Your task to perform on an android device: turn vacation reply on in the gmail app Image 0: 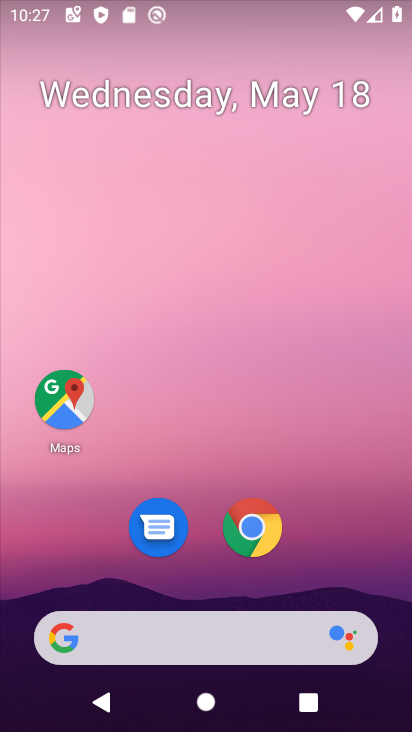
Step 0: drag from (342, 542) to (304, 7)
Your task to perform on an android device: turn vacation reply on in the gmail app Image 1: 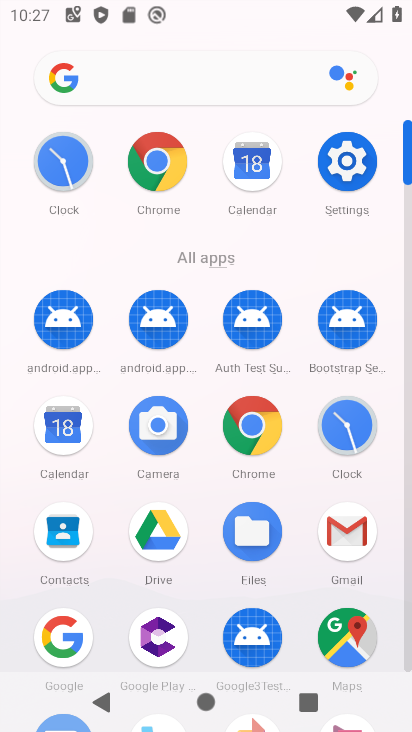
Step 1: click (344, 519)
Your task to perform on an android device: turn vacation reply on in the gmail app Image 2: 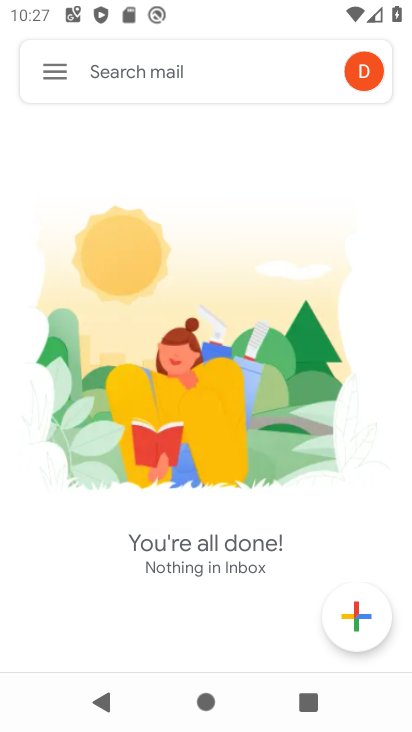
Step 2: click (45, 83)
Your task to perform on an android device: turn vacation reply on in the gmail app Image 3: 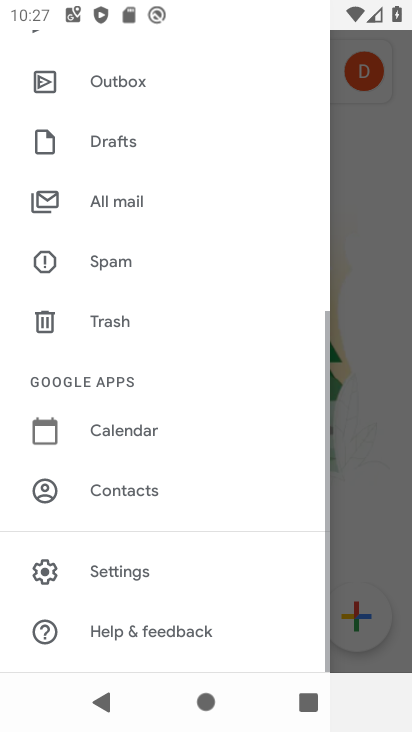
Step 3: click (93, 556)
Your task to perform on an android device: turn vacation reply on in the gmail app Image 4: 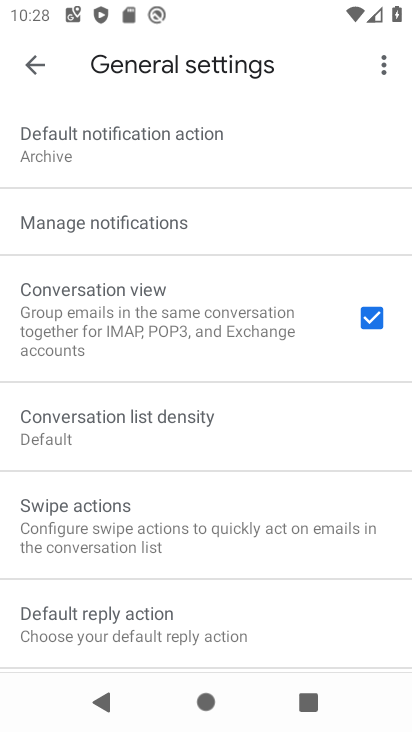
Step 4: drag from (146, 515) to (149, 368)
Your task to perform on an android device: turn vacation reply on in the gmail app Image 5: 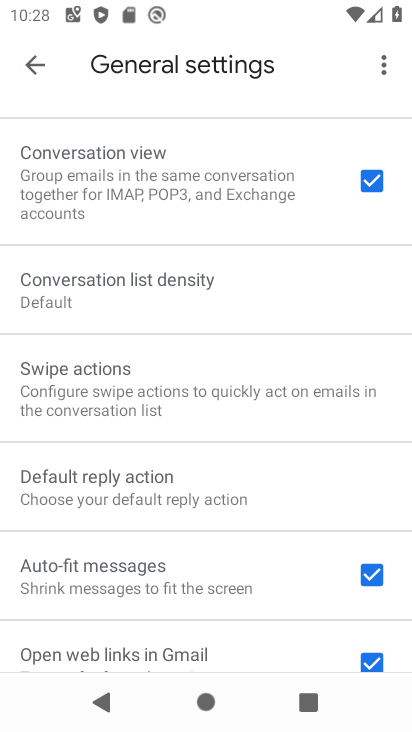
Step 5: click (34, 71)
Your task to perform on an android device: turn vacation reply on in the gmail app Image 6: 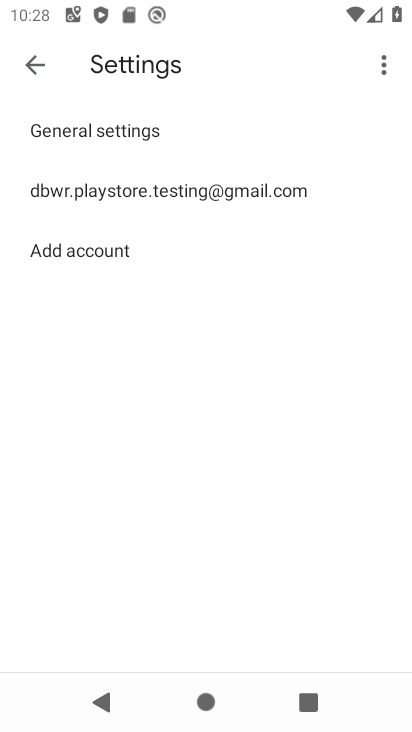
Step 6: click (42, 186)
Your task to perform on an android device: turn vacation reply on in the gmail app Image 7: 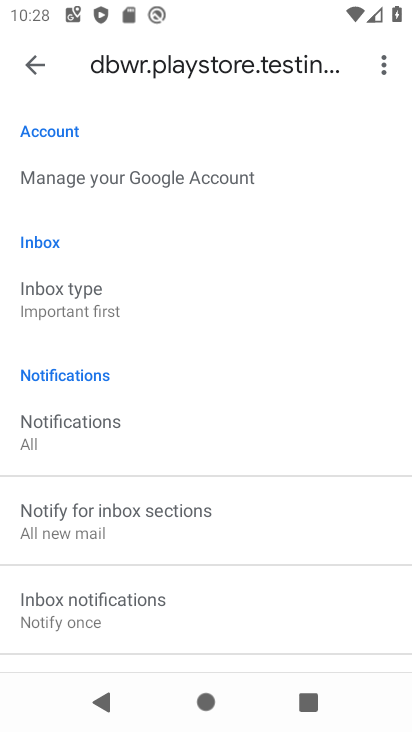
Step 7: drag from (65, 498) to (92, 388)
Your task to perform on an android device: turn vacation reply on in the gmail app Image 8: 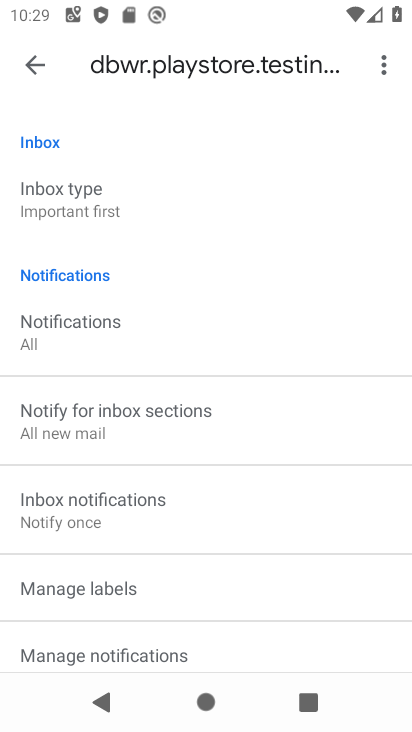
Step 8: drag from (136, 610) to (151, 484)
Your task to perform on an android device: turn vacation reply on in the gmail app Image 9: 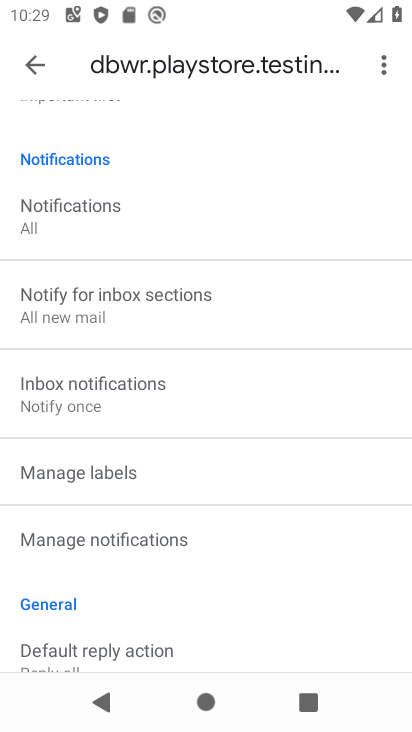
Step 9: drag from (178, 611) to (195, 512)
Your task to perform on an android device: turn vacation reply on in the gmail app Image 10: 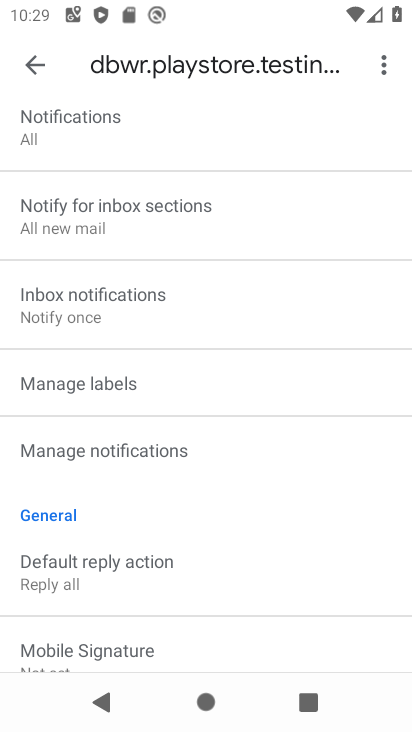
Step 10: drag from (165, 606) to (165, 541)
Your task to perform on an android device: turn vacation reply on in the gmail app Image 11: 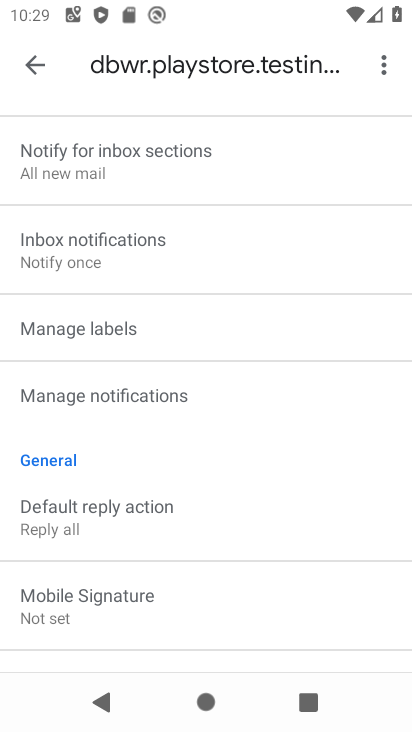
Step 11: drag from (150, 567) to (174, 359)
Your task to perform on an android device: turn vacation reply on in the gmail app Image 12: 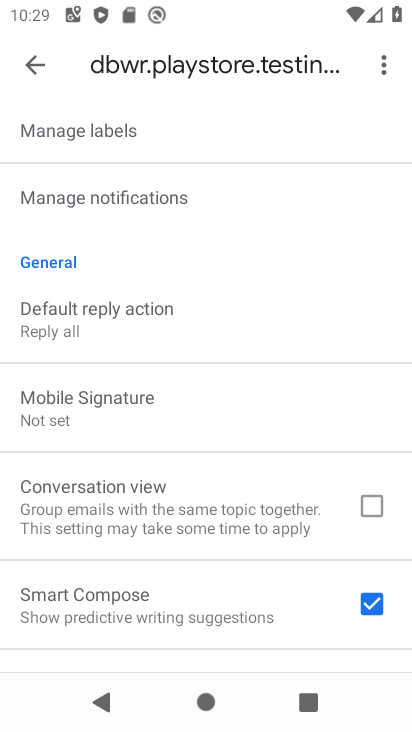
Step 12: drag from (171, 591) to (195, 313)
Your task to perform on an android device: turn vacation reply on in the gmail app Image 13: 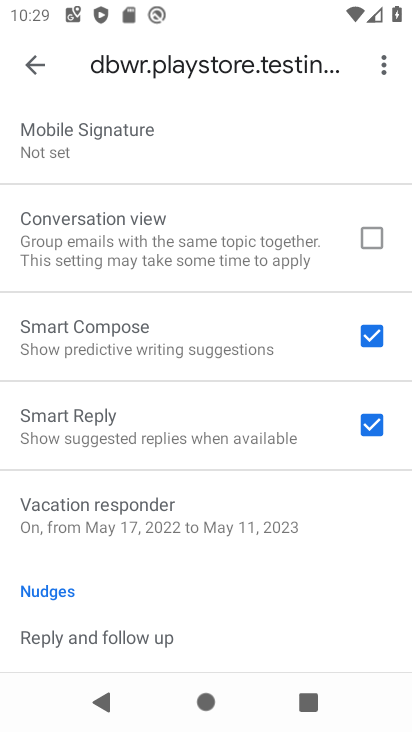
Step 13: click (165, 513)
Your task to perform on an android device: turn vacation reply on in the gmail app Image 14: 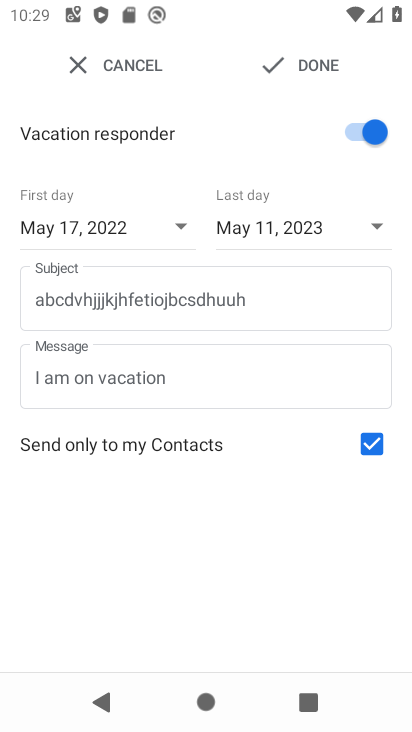
Step 14: click (286, 78)
Your task to perform on an android device: turn vacation reply on in the gmail app Image 15: 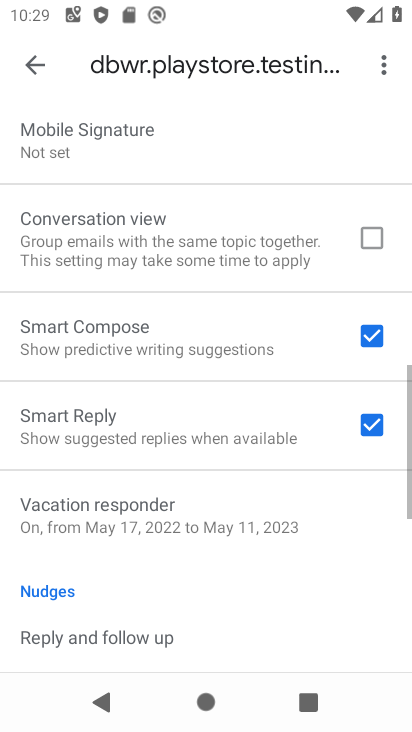
Step 15: task complete